Your task to perform on an android device: turn pop-ups on in chrome Image 0: 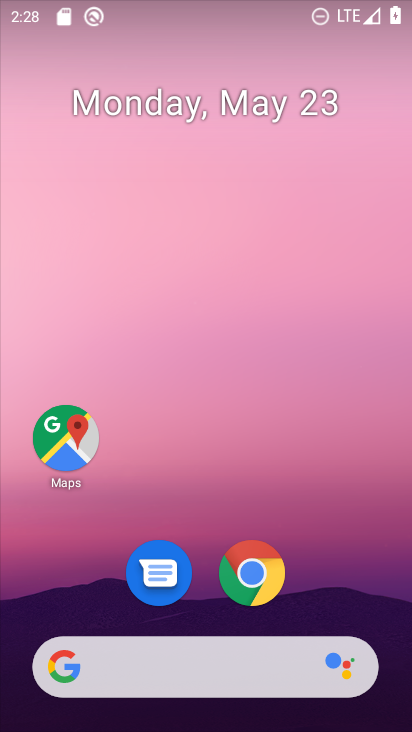
Step 0: click (252, 559)
Your task to perform on an android device: turn pop-ups on in chrome Image 1: 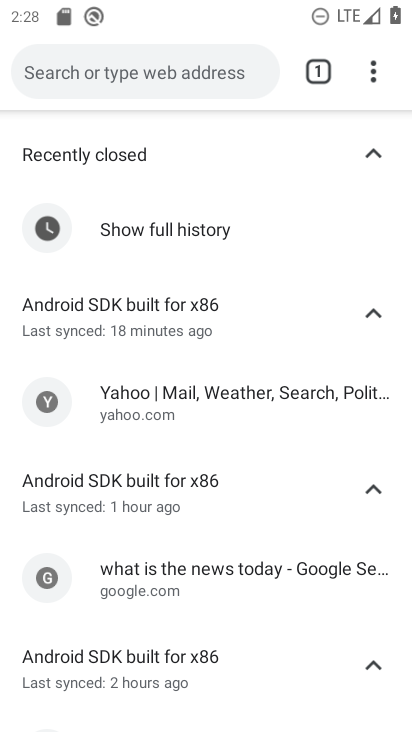
Step 1: drag from (373, 59) to (190, 618)
Your task to perform on an android device: turn pop-ups on in chrome Image 2: 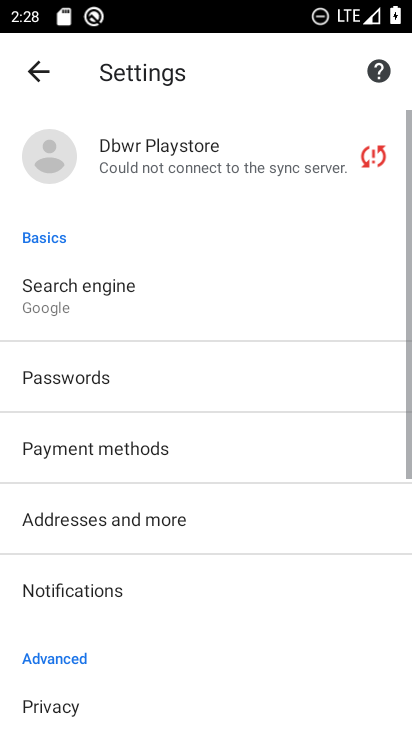
Step 2: drag from (213, 597) to (201, 164)
Your task to perform on an android device: turn pop-ups on in chrome Image 3: 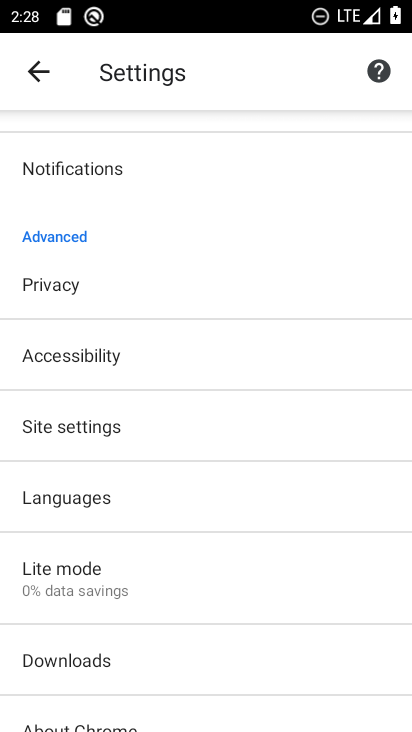
Step 3: click (88, 428)
Your task to perform on an android device: turn pop-ups on in chrome Image 4: 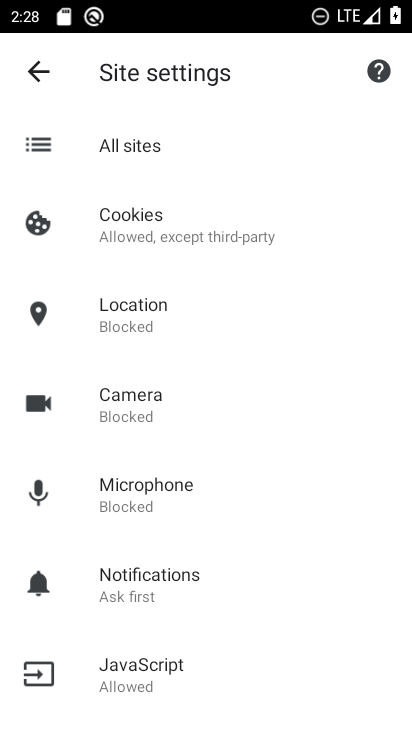
Step 4: drag from (212, 569) to (234, 261)
Your task to perform on an android device: turn pop-ups on in chrome Image 5: 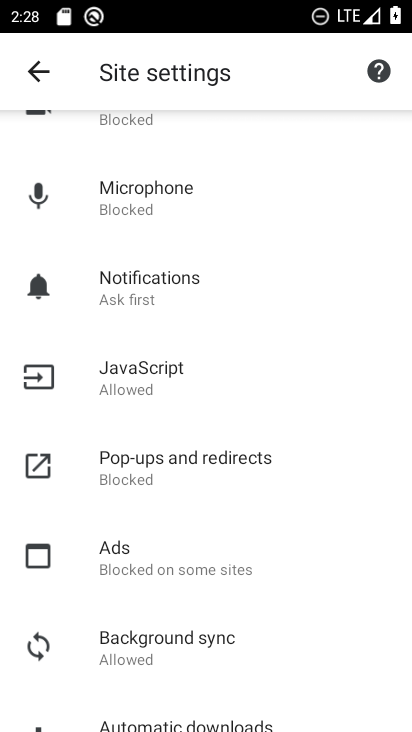
Step 5: click (171, 467)
Your task to perform on an android device: turn pop-ups on in chrome Image 6: 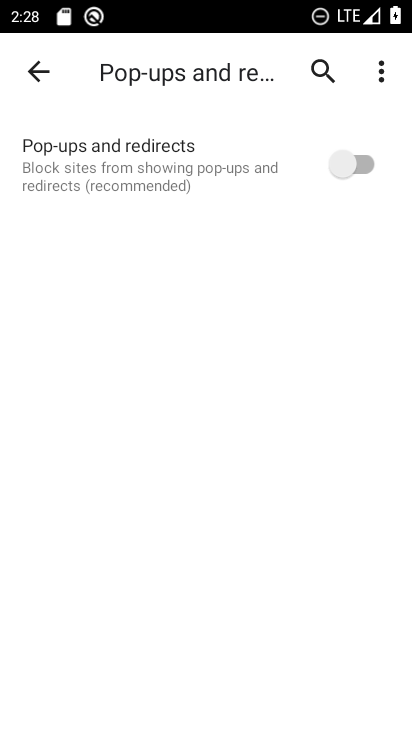
Step 6: click (342, 152)
Your task to perform on an android device: turn pop-ups on in chrome Image 7: 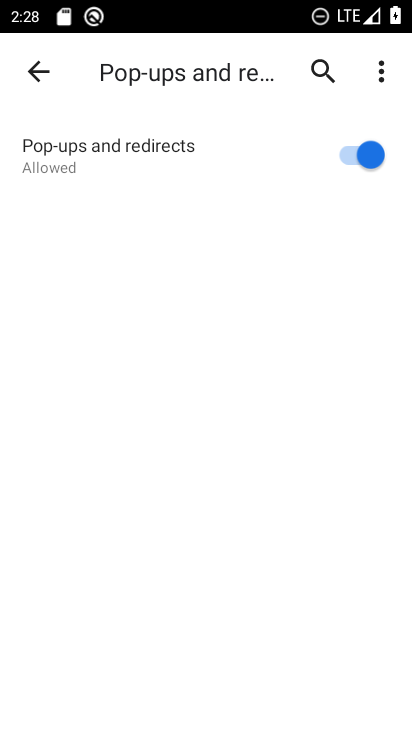
Step 7: task complete